Your task to perform on an android device: Search for Mexican restaurants on Maps Image 0: 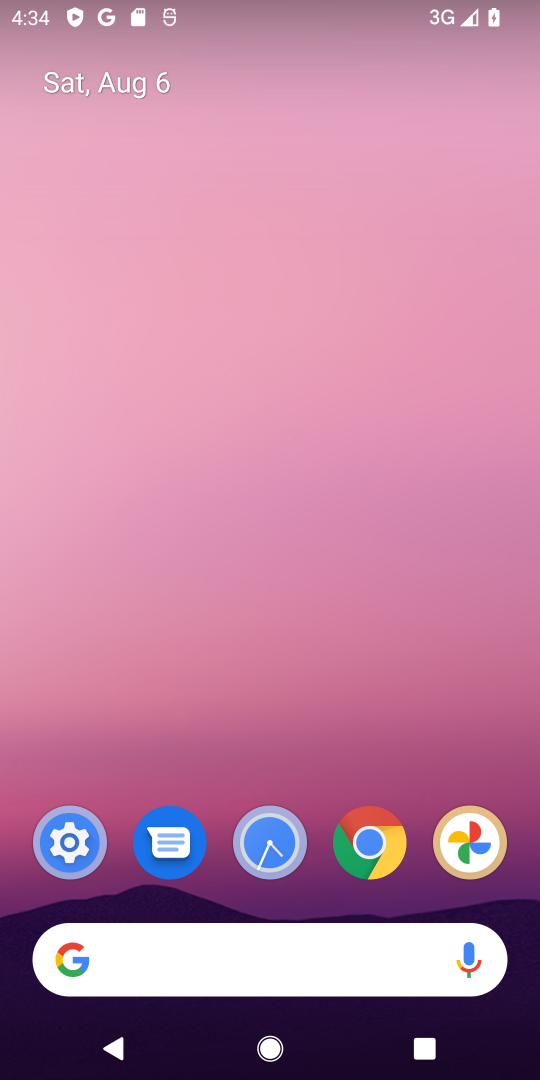
Step 0: drag from (535, 966) to (444, 313)
Your task to perform on an android device: Search for Mexican restaurants on Maps Image 1: 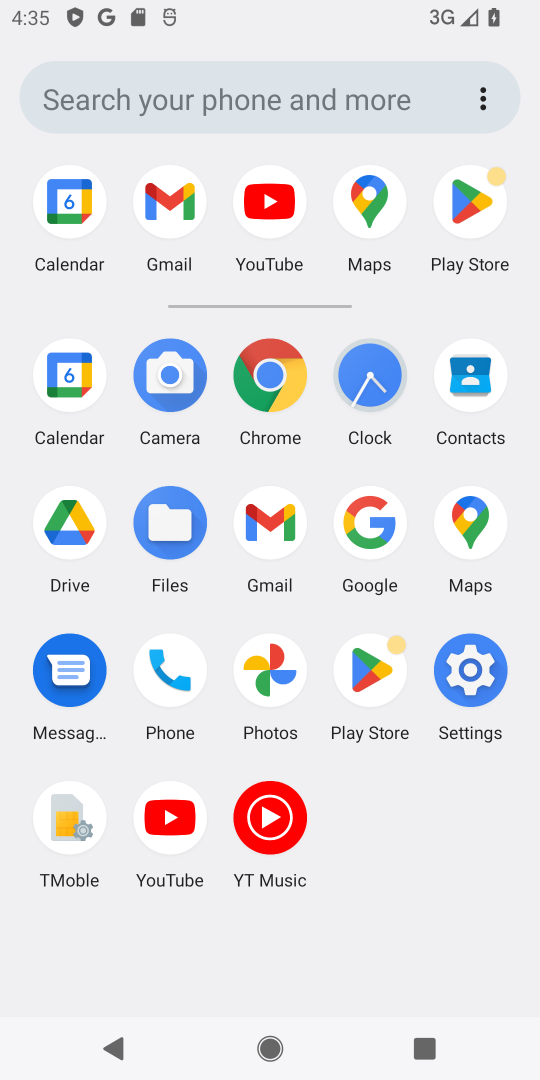
Step 1: click (469, 528)
Your task to perform on an android device: Search for Mexican restaurants on Maps Image 2: 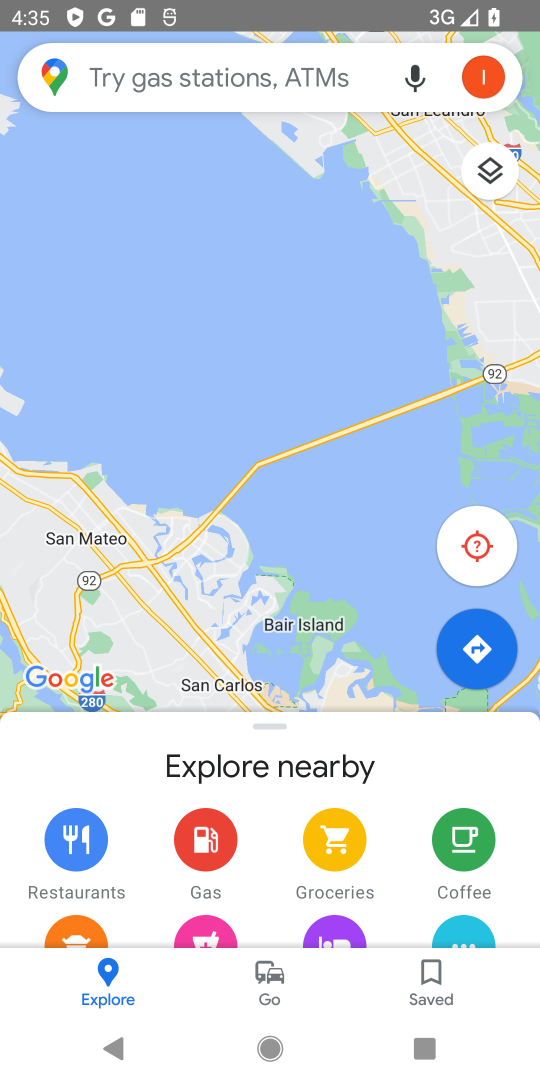
Step 2: click (283, 67)
Your task to perform on an android device: Search for Mexican restaurants on Maps Image 3: 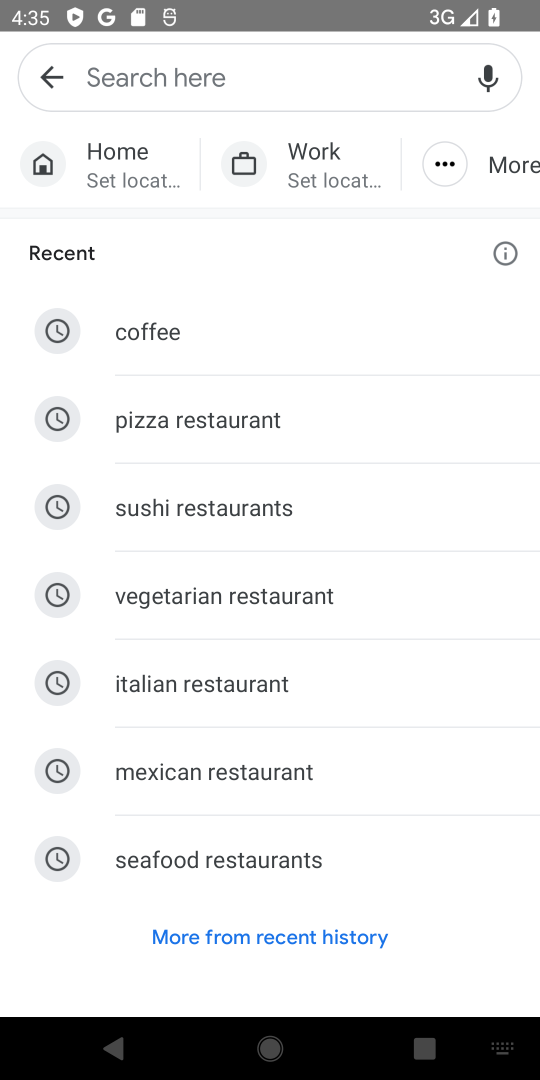
Step 3: type "Mexican restaurants"
Your task to perform on an android device: Search for Mexican restaurants on Maps Image 4: 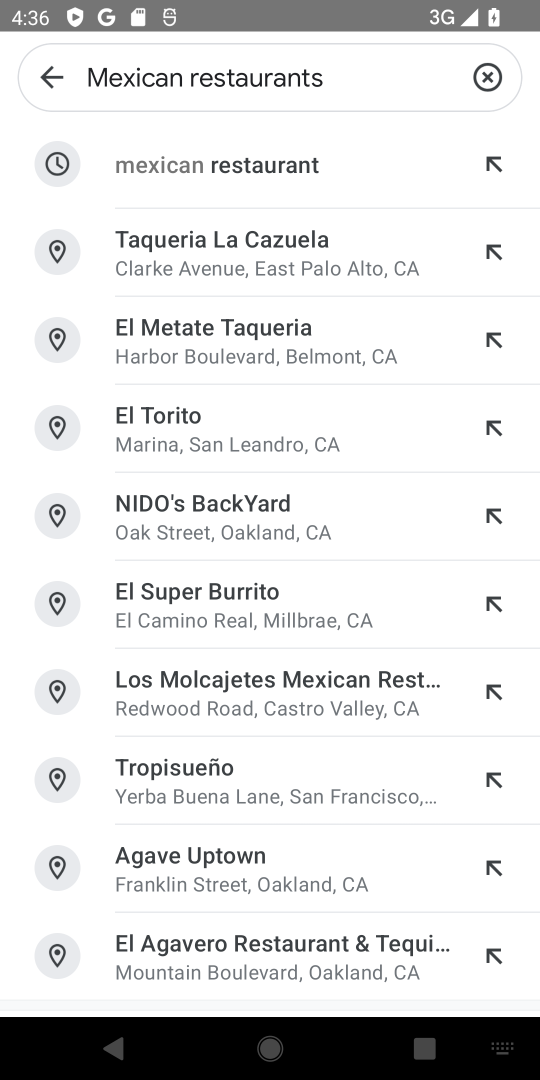
Step 4: click (294, 161)
Your task to perform on an android device: Search for Mexican restaurants on Maps Image 5: 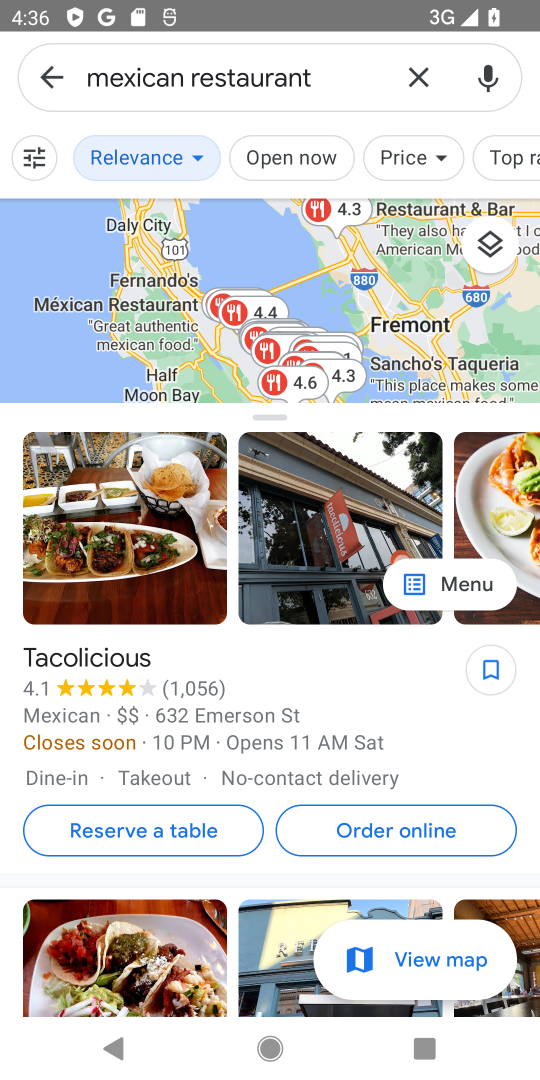
Step 5: task complete